Your task to perform on an android device: set the timer Image 0: 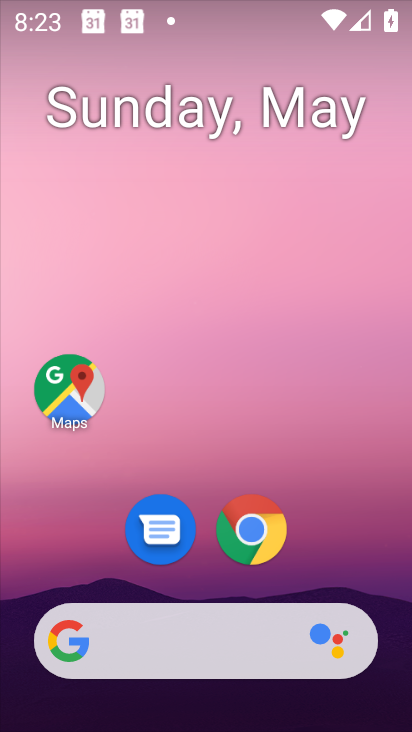
Step 0: drag from (355, 565) to (241, 0)
Your task to perform on an android device: set the timer Image 1: 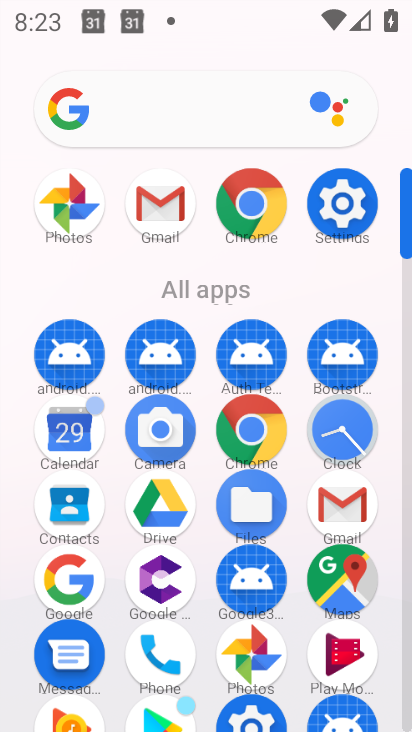
Step 1: click (342, 441)
Your task to perform on an android device: set the timer Image 2: 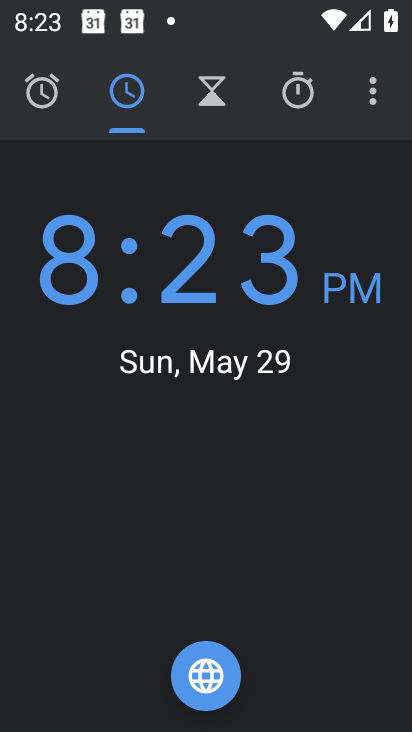
Step 2: click (365, 131)
Your task to perform on an android device: set the timer Image 3: 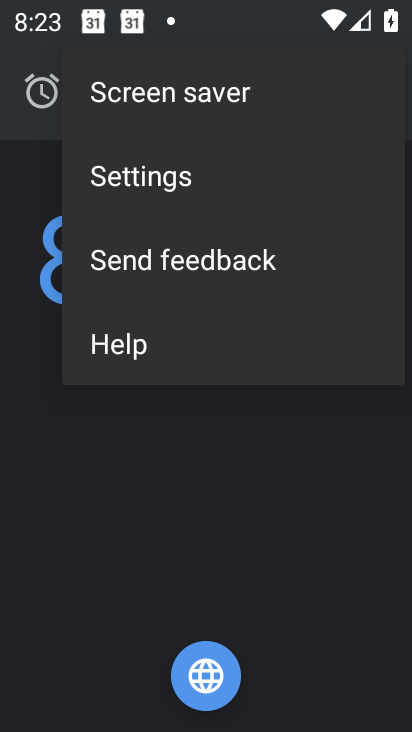
Step 3: click (210, 177)
Your task to perform on an android device: set the timer Image 4: 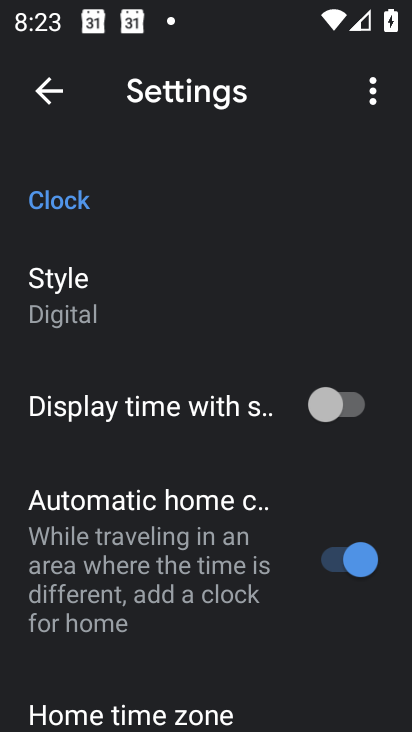
Step 4: drag from (174, 569) to (139, 218)
Your task to perform on an android device: set the timer Image 5: 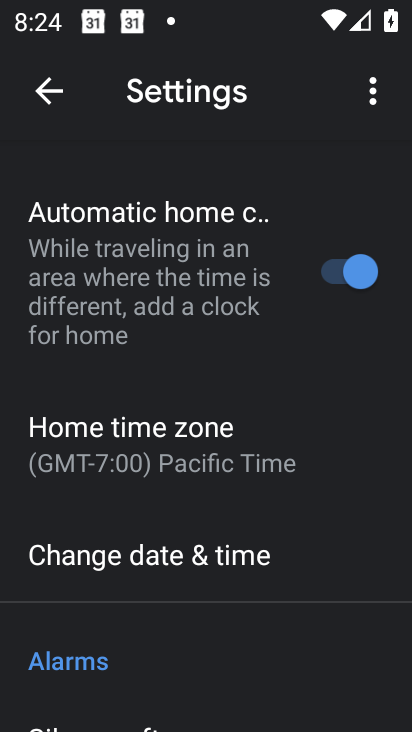
Step 5: click (54, 98)
Your task to perform on an android device: set the timer Image 6: 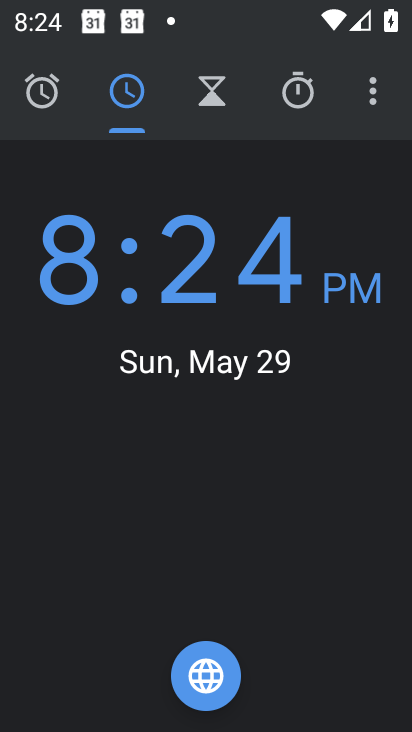
Step 6: click (220, 95)
Your task to perform on an android device: set the timer Image 7: 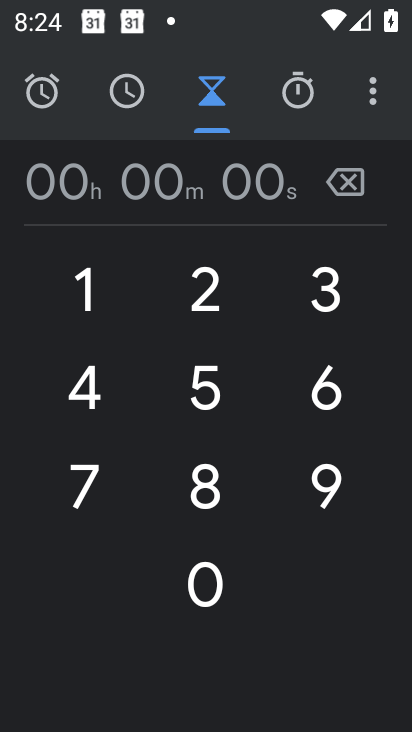
Step 7: task complete